Your task to perform on an android device: turn on showing notifications on the lock screen Image 0: 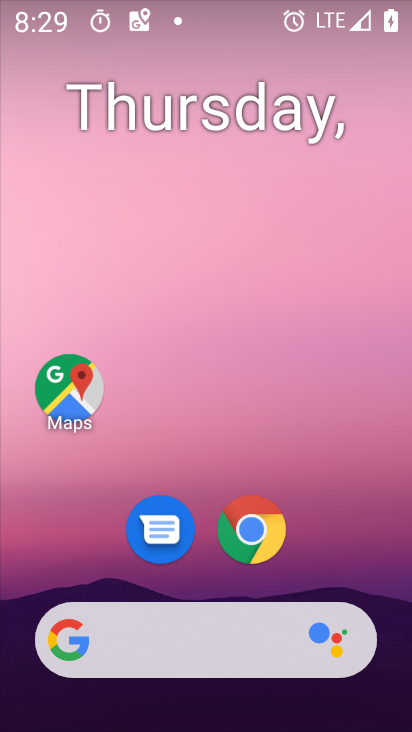
Step 0: drag from (363, 564) to (388, 298)
Your task to perform on an android device: turn on showing notifications on the lock screen Image 1: 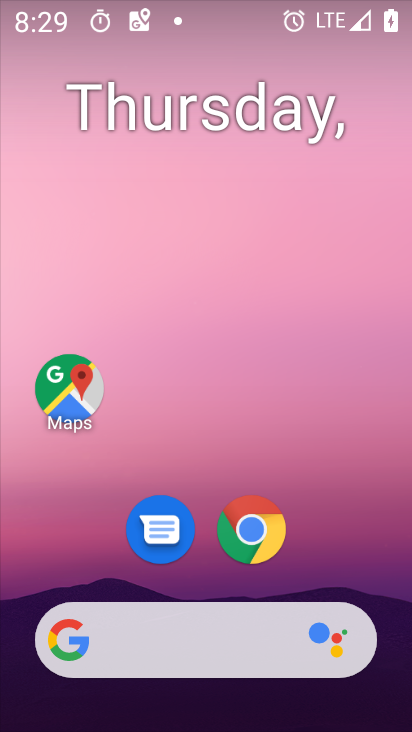
Step 1: drag from (380, 592) to (375, 350)
Your task to perform on an android device: turn on showing notifications on the lock screen Image 2: 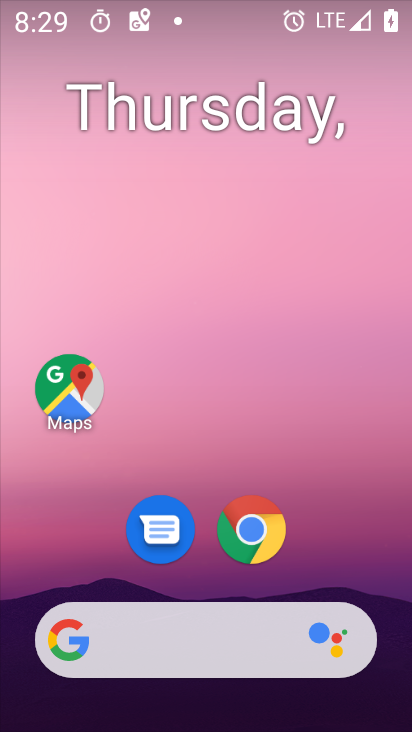
Step 2: drag from (368, 559) to (359, 157)
Your task to perform on an android device: turn on showing notifications on the lock screen Image 3: 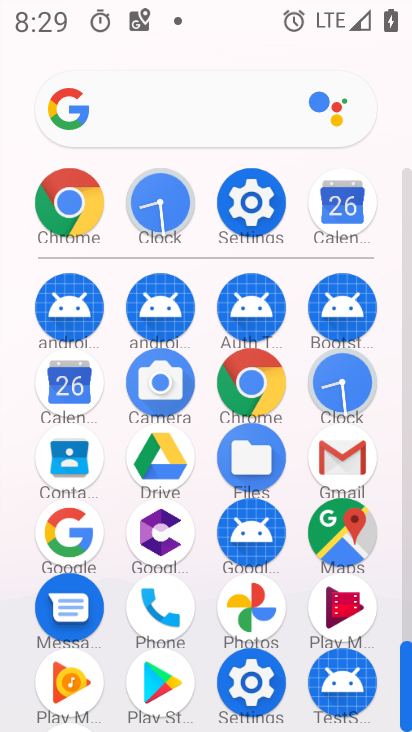
Step 3: click (273, 224)
Your task to perform on an android device: turn on showing notifications on the lock screen Image 4: 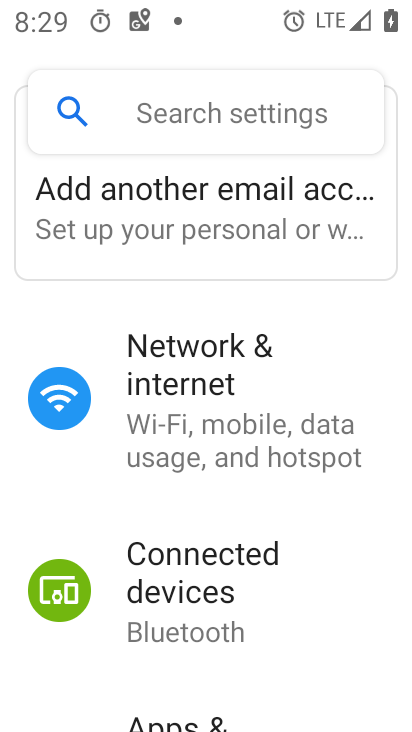
Step 4: drag from (355, 583) to (361, 472)
Your task to perform on an android device: turn on showing notifications on the lock screen Image 5: 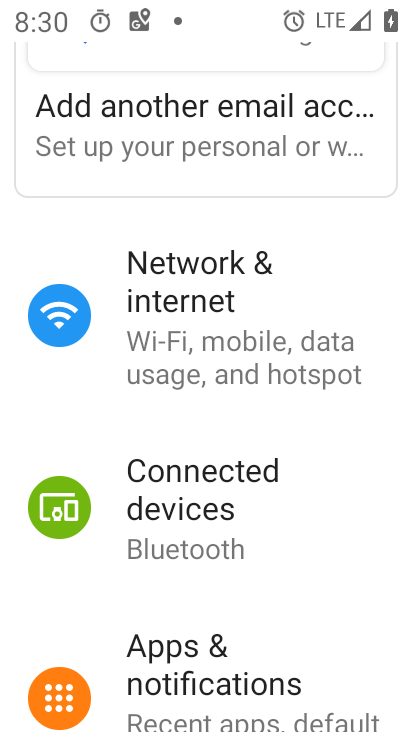
Step 5: drag from (356, 567) to (359, 478)
Your task to perform on an android device: turn on showing notifications on the lock screen Image 6: 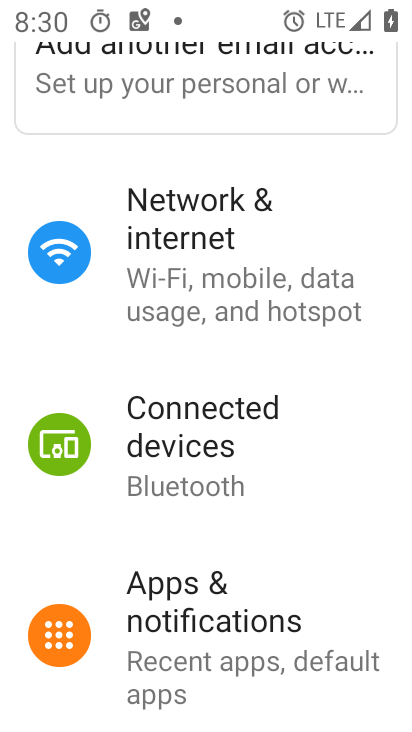
Step 6: drag from (359, 572) to (363, 446)
Your task to perform on an android device: turn on showing notifications on the lock screen Image 7: 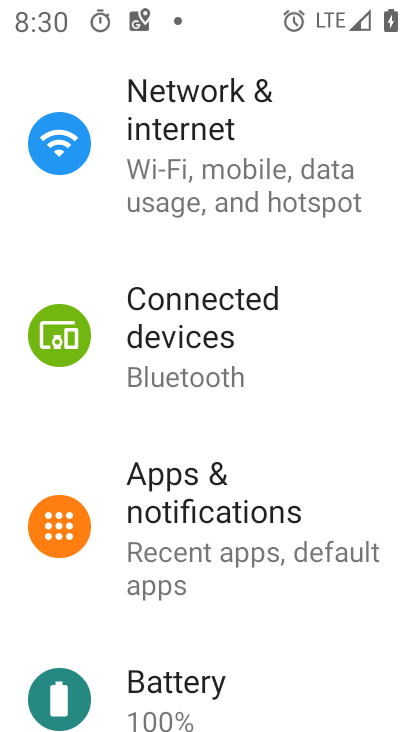
Step 7: drag from (350, 426) to (362, 342)
Your task to perform on an android device: turn on showing notifications on the lock screen Image 8: 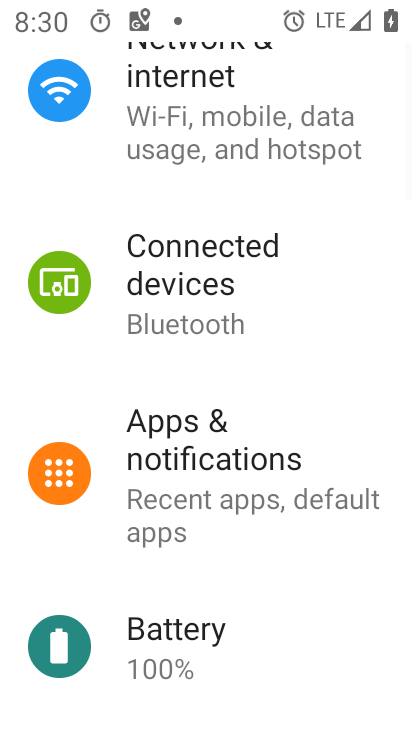
Step 8: drag from (360, 441) to (373, 309)
Your task to perform on an android device: turn on showing notifications on the lock screen Image 9: 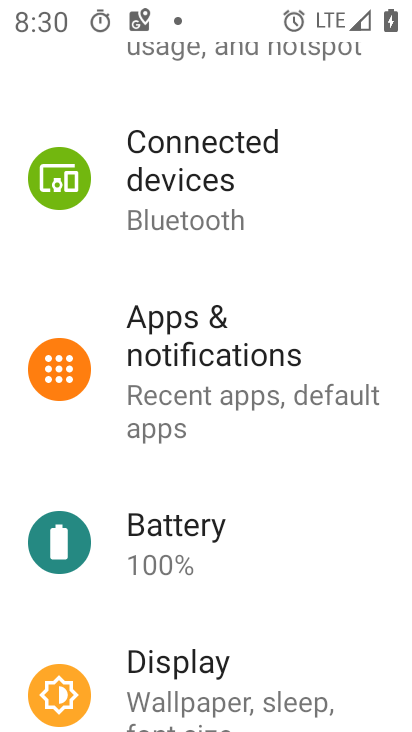
Step 9: drag from (356, 482) to (362, 331)
Your task to perform on an android device: turn on showing notifications on the lock screen Image 10: 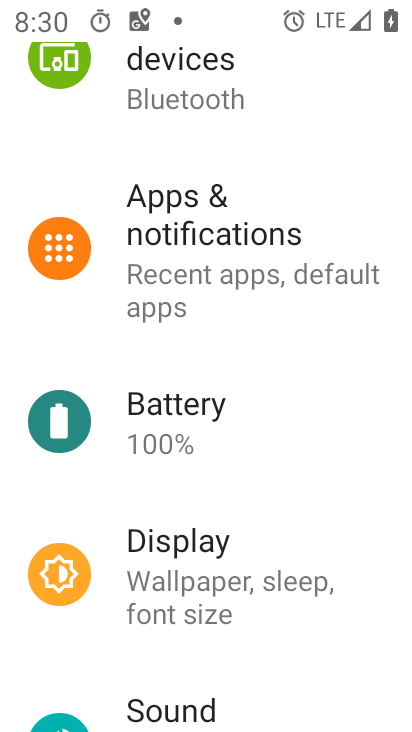
Step 10: click (308, 287)
Your task to perform on an android device: turn on showing notifications on the lock screen Image 11: 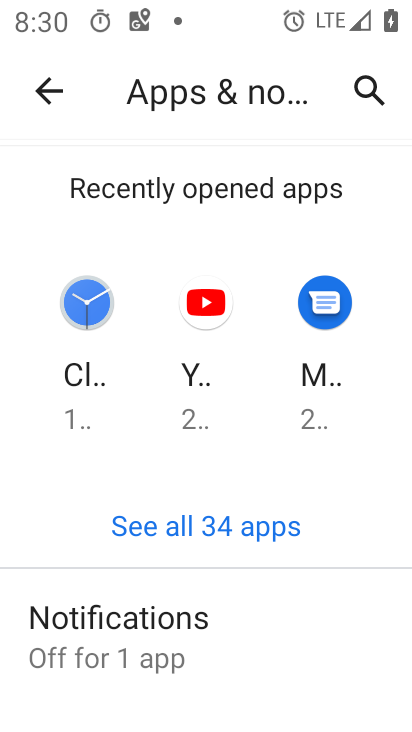
Step 11: drag from (342, 531) to (358, 378)
Your task to perform on an android device: turn on showing notifications on the lock screen Image 12: 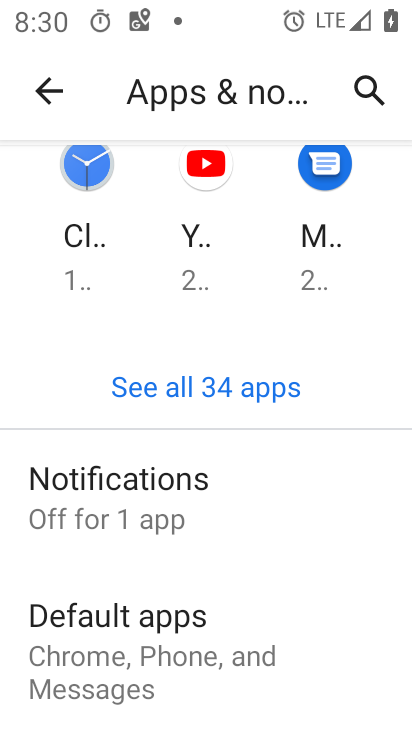
Step 12: drag from (345, 579) to (348, 413)
Your task to perform on an android device: turn on showing notifications on the lock screen Image 13: 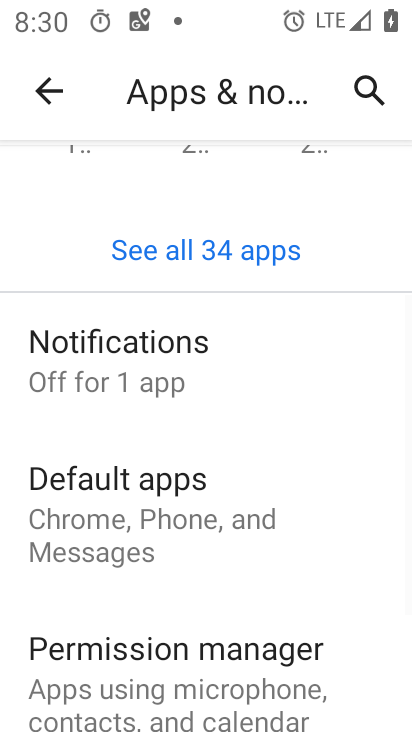
Step 13: click (225, 370)
Your task to perform on an android device: turn on showing notifications on the lock screen Image 14: 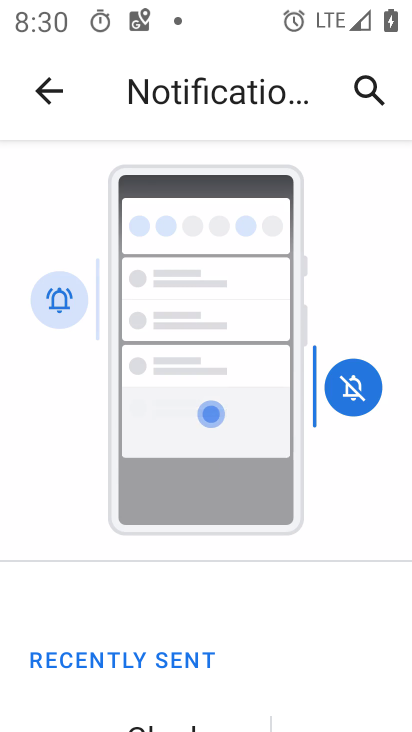
Step 14: drag from (313, 616) to (323, 458)
Your task to perform on an android device: turn on showing notifications on the lock screen Image 15: 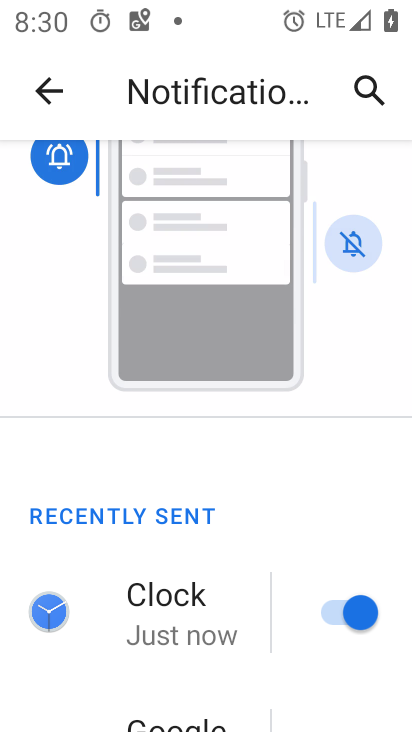
Step 15: drag from (248, 650) to (267, 473)
Your task to perform on an android device: turn on showing notifications on the lock screen Image 16: 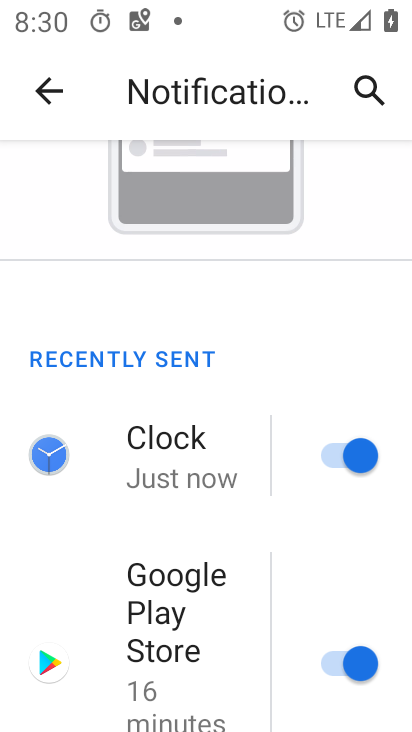
Step 16: drag from (246, 659) to (255, 499)
Your task to perform on an android device: turn on showing notifications on the lock screen Image 17: 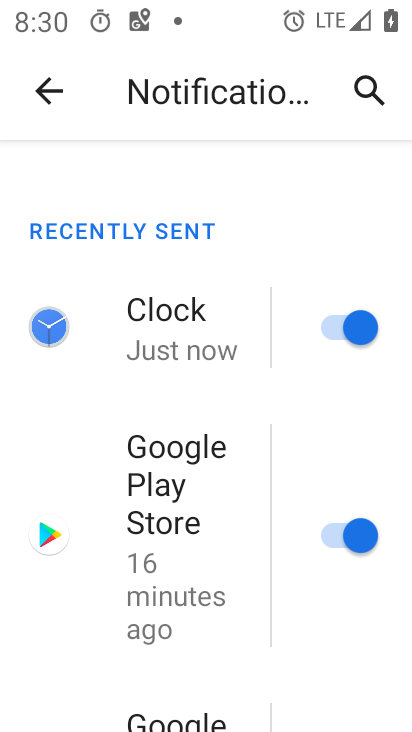
Step 17: drag from (245, 627) to (249, 477)
Your task to perform on an android device: turn on showing notifications on the lock screen Image 18: 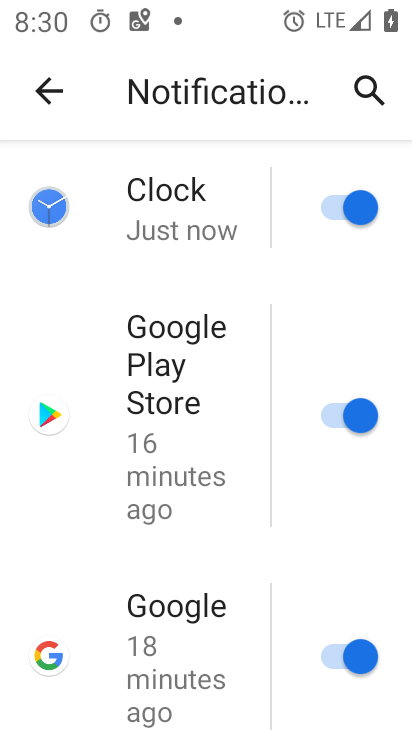
Step 18: drag from (244, 659) to (236, 431)
Your task to perform on an android device: turn on showing notifications on the lock screen Image 19: 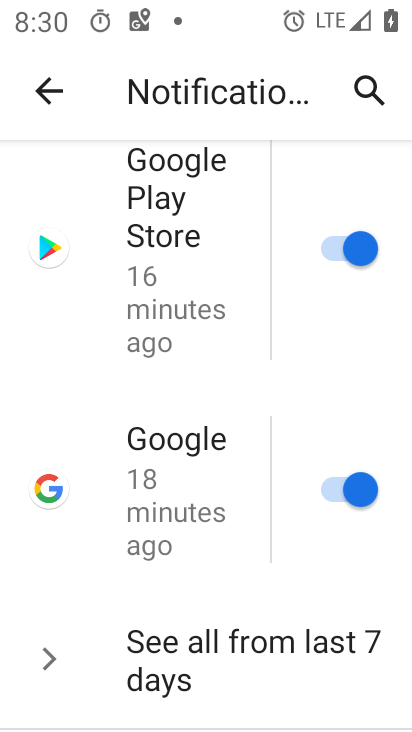
Step 19: drag from (231, 422) to (221, 331)
Your task to perform on an android device: turn on showing notifications on the lock screen Image 20: 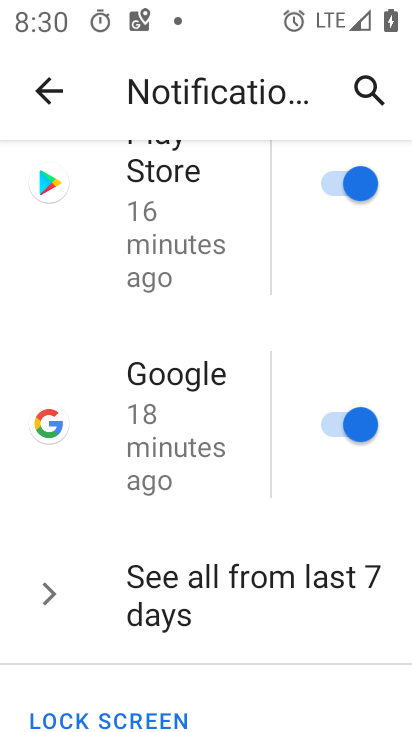
Step 20: drag from (252, 462) to (255, 333)
Your task to perform on an android device: turn on showing notifications on the lock screen Image 21: 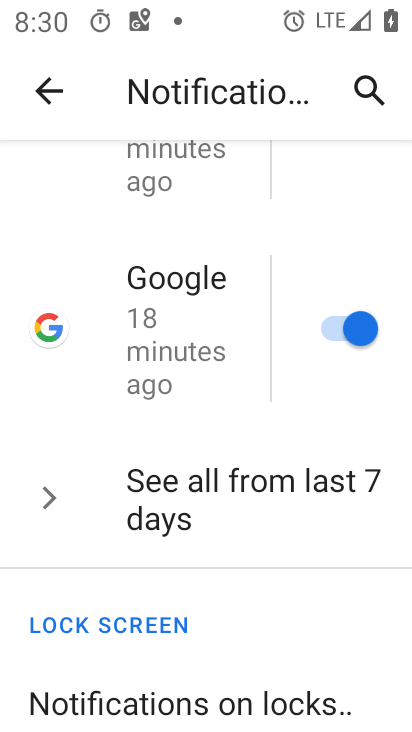
Step 21: drag from (257, 571) to (259, 389)
Your task to perform on an android device: turn on showing notifications on the lock screen Image 22: 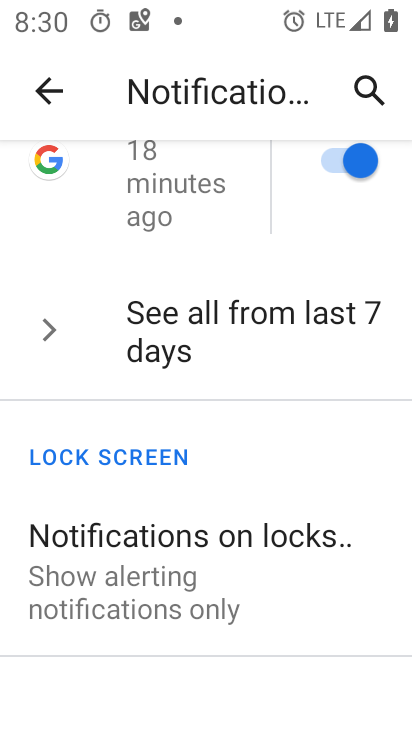
Step 22: click (266, 556)
Your task to perform on an android device: turn on showing notifications on the lock screen Image 23: 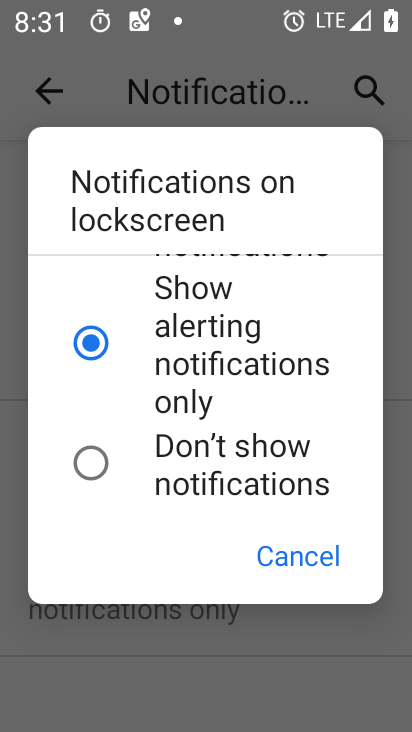
Step 23: task complete